Your task to perform on an android device: Open Chrome and go to settings Image 0: 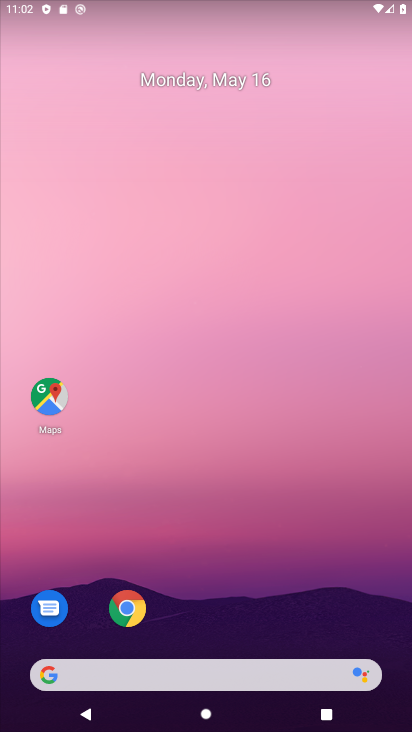
Step 0: click (137, 605)
Your task to perform on an android device: Open Chrome and go to settings Image 1: 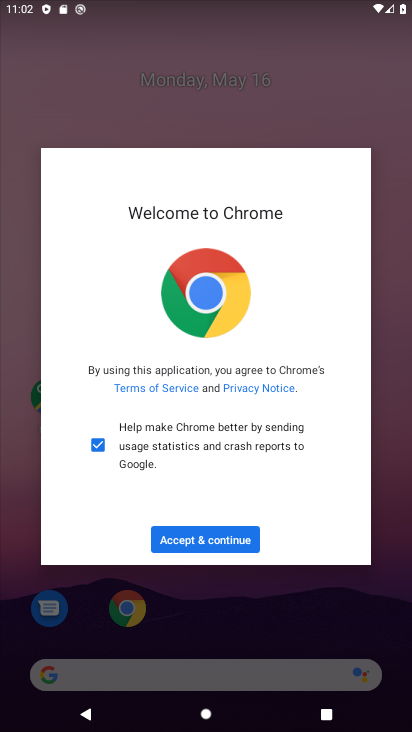
Step 1: click (218, 532)
Your task to perform on an android device: Open Chrome and go to settings Image 2: 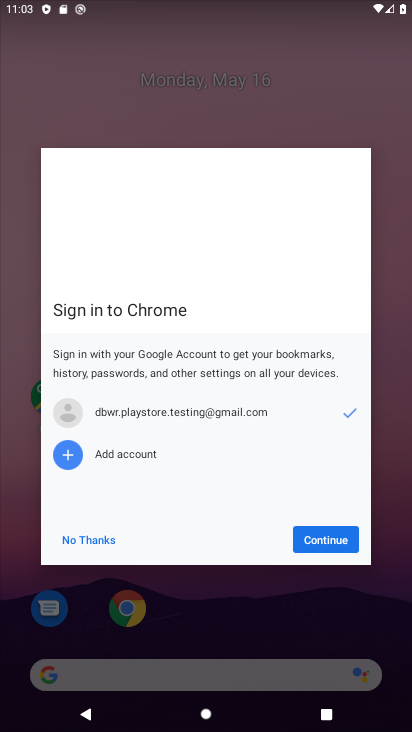
Step 2: click (313, 542)
Your task to perform on an android device: Open Chrome and go to settings Image 3: 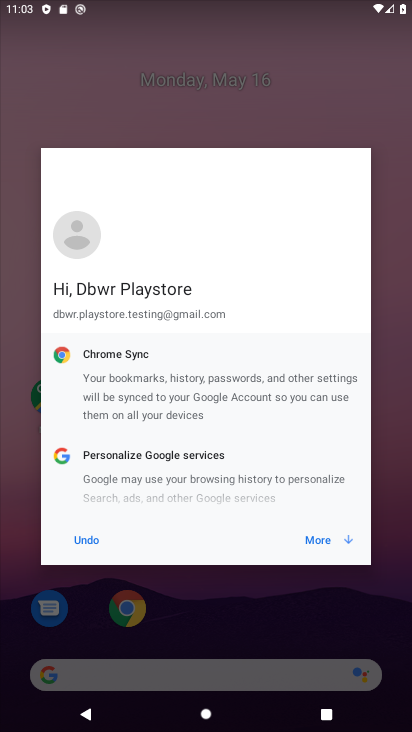
Step 3: click (323, 544)
Your task to perform on an android device: Open Chrome and go to settings Image 4: 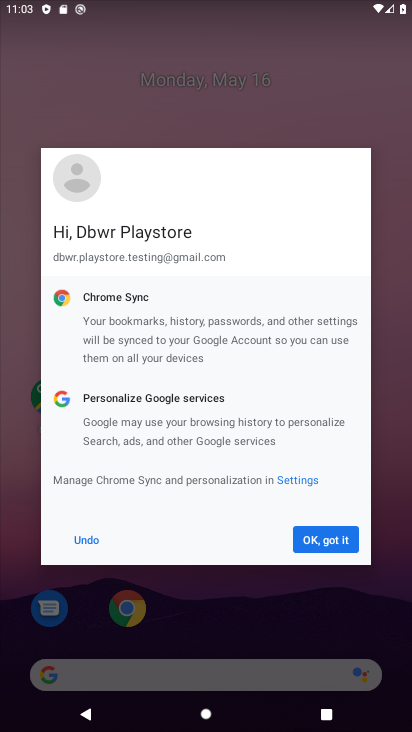
Step 4: click (326, 535)
Your task to perform on an android device: Open Chrome and go to settings Image 5: 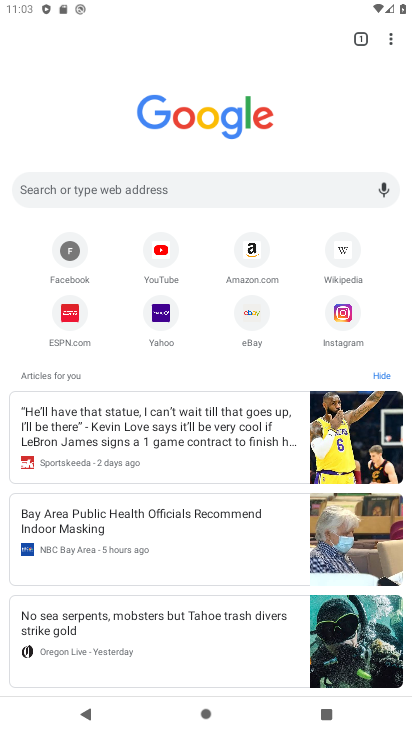
Step 5: task complete